Your task to perform on an android device: Clear all items from cart on walmart. Add logitech g933 to the cart on walmart Image 0: 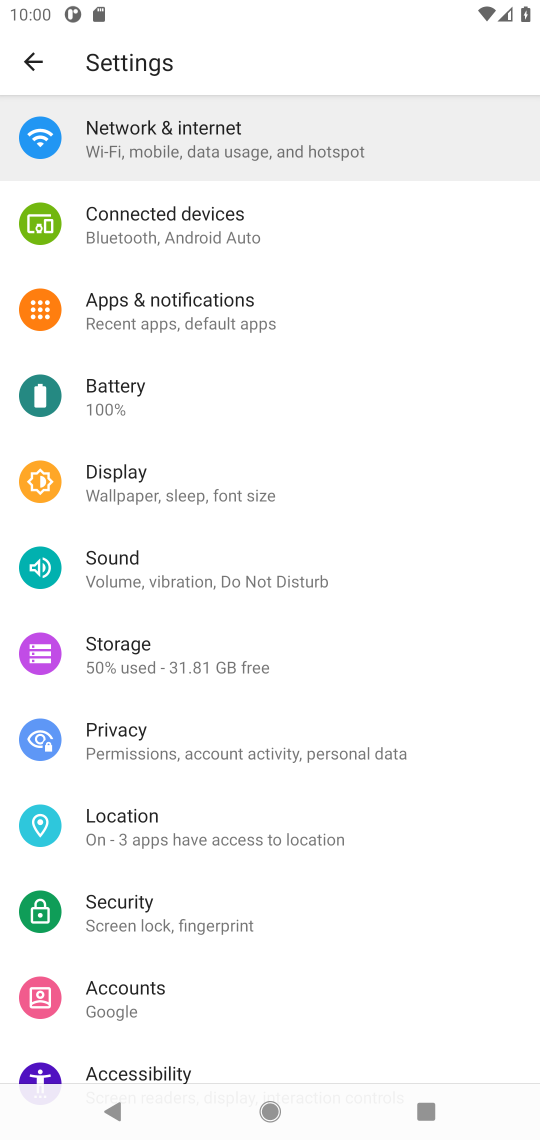
Step 0: press home button
Your task to perform on an android device: Clear all items from cart on walmart. Add logitech g933 to the cart on walmart Image 1: 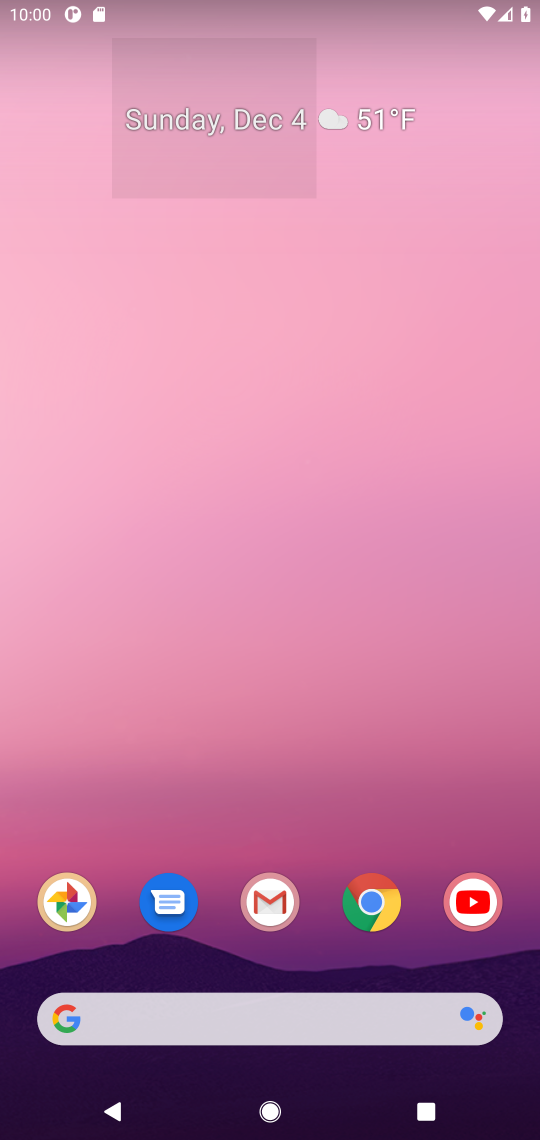
Step 1: click (365, 925)
Your task to perform on an android device: Clear all items from cart on walmart. Add logitech g933 to the cart on walmart Image 2: 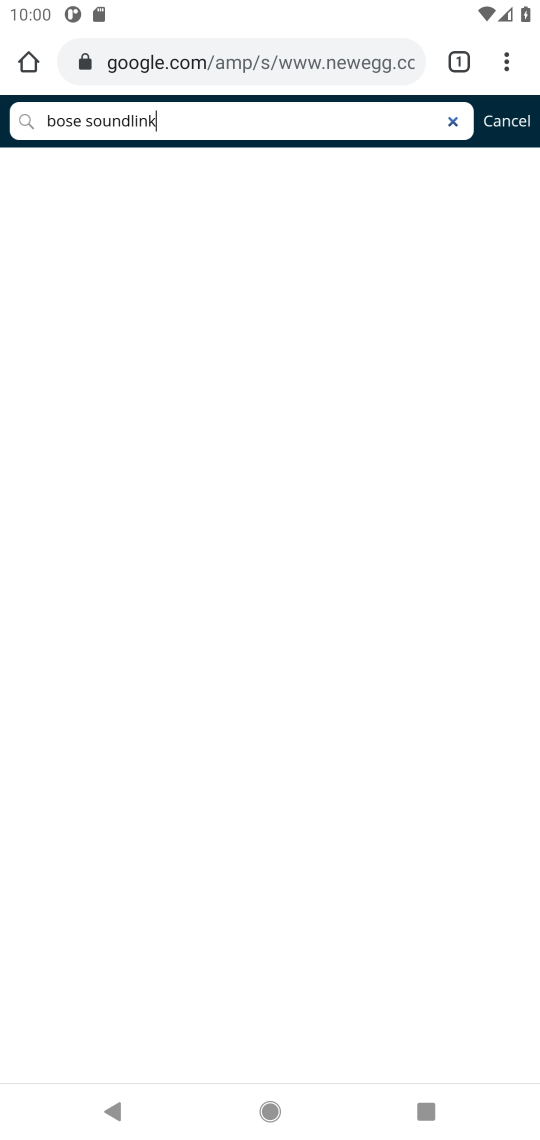
Step 2: click (283, 68)
Your task to perform on an android device: Clear all items from cart on walmart. Add logitech g933 to the cart on walmart Image 3: 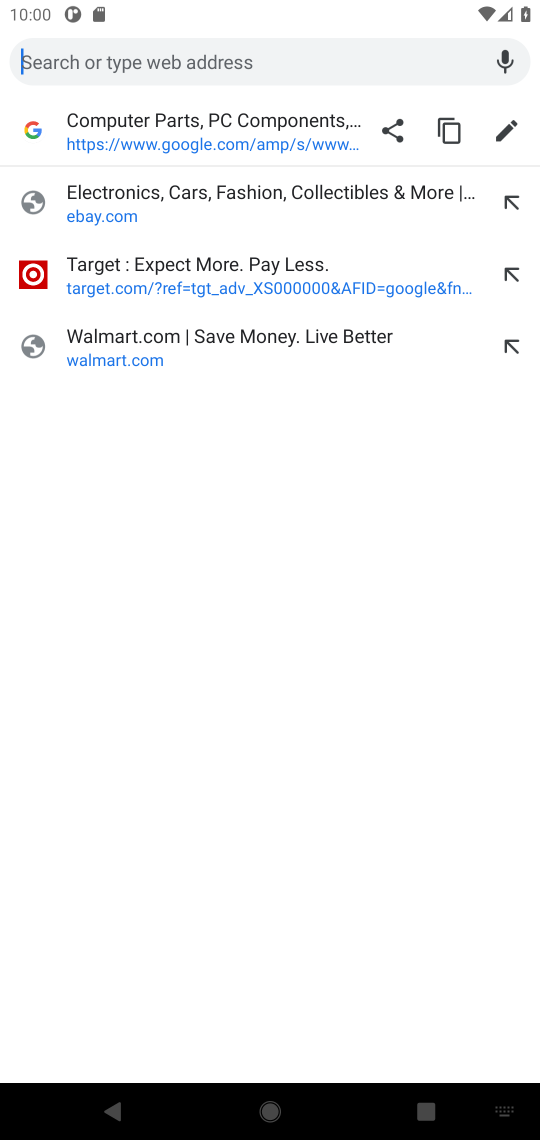
Step 3: click (151, 360)
Your task to perform on an android device: Clear all items from cart on walmart. Add logitech g933 to the cart on walmart Image 4: 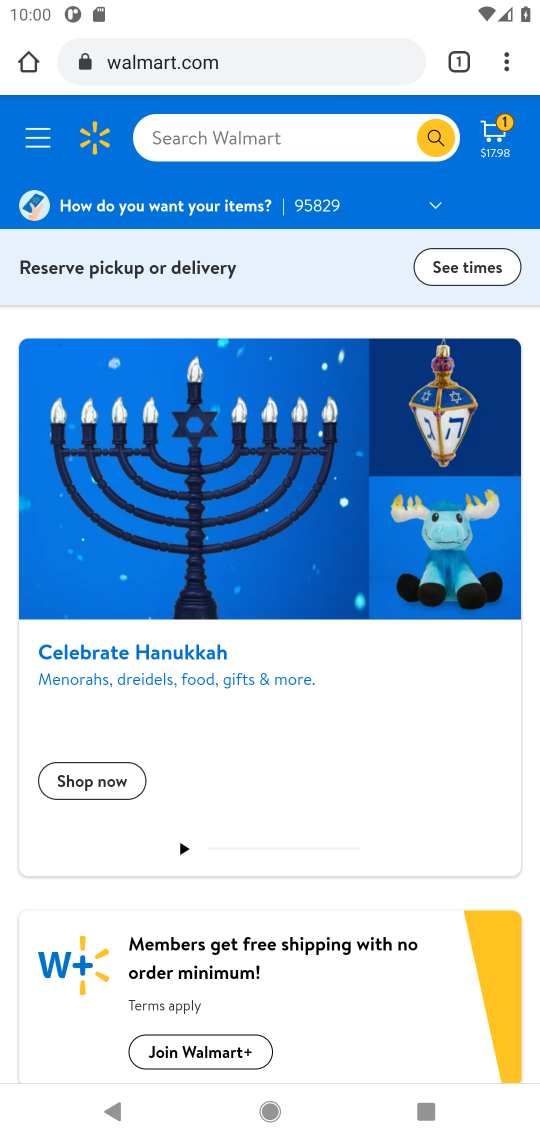
Step 4: click (506, 144)
Your task to perform on an android device: Clear all items from cart on walmart. Add logitech g933 to the cart on walmart Image 5: 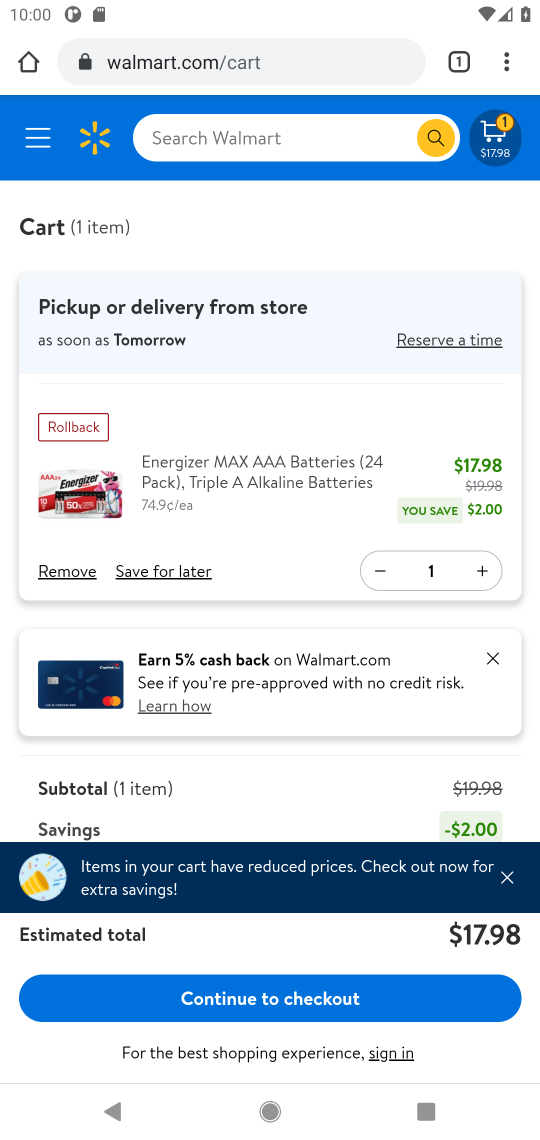
Step 5: click (67, 570)
Your task to perform on an android device: Clear all items from cart on walmart. Add logitech g933 to the cart on walmart Image 6: 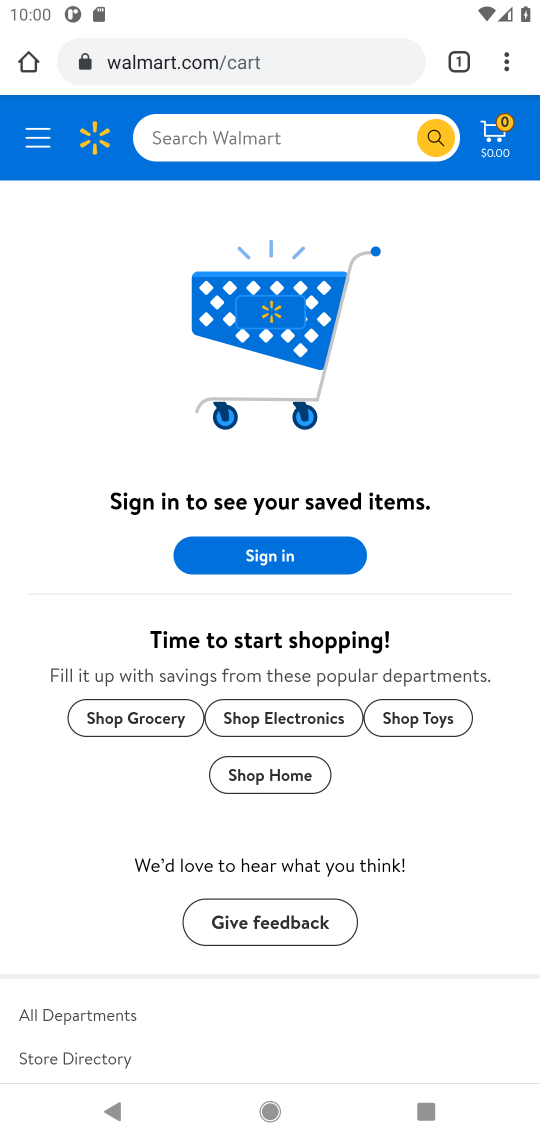
Step 6: click (316, 133)
Your task to perform on an android device: Clear all items from cart on walmart. Add logitech g933 to the cart on walmart Image 7: 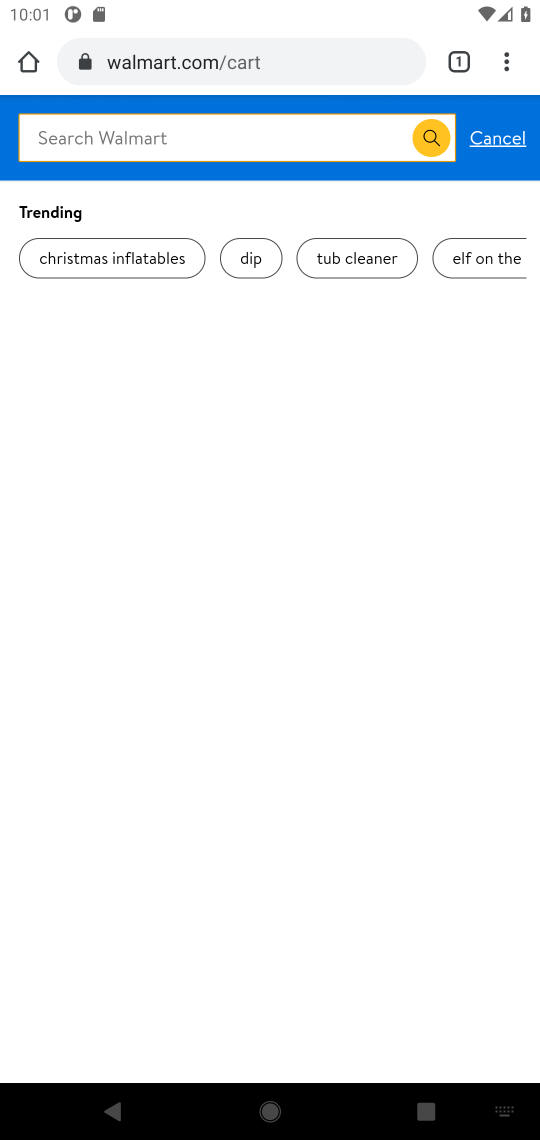
Step 7: type "logitech g933"
Your task to perform on an android device: Clear all items from cart on walmart. Add logitech g933 to the cart on walmart Image 8: 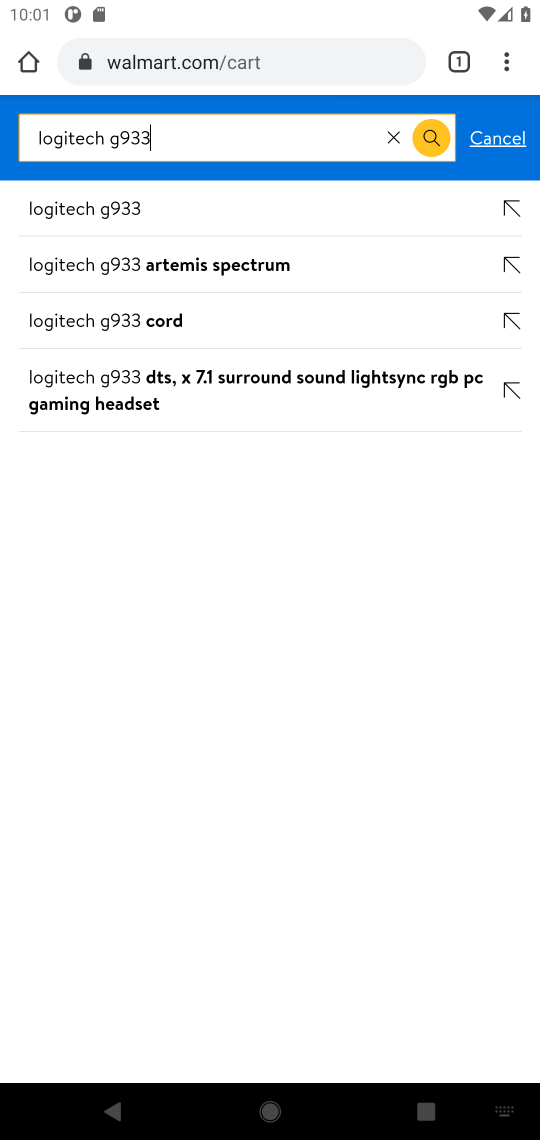
Step 8: click (424, 143)
Your task to perform on an android device: Clear all items from cart on walmart. Add logitech g933 to the cart on walmart Image 9: 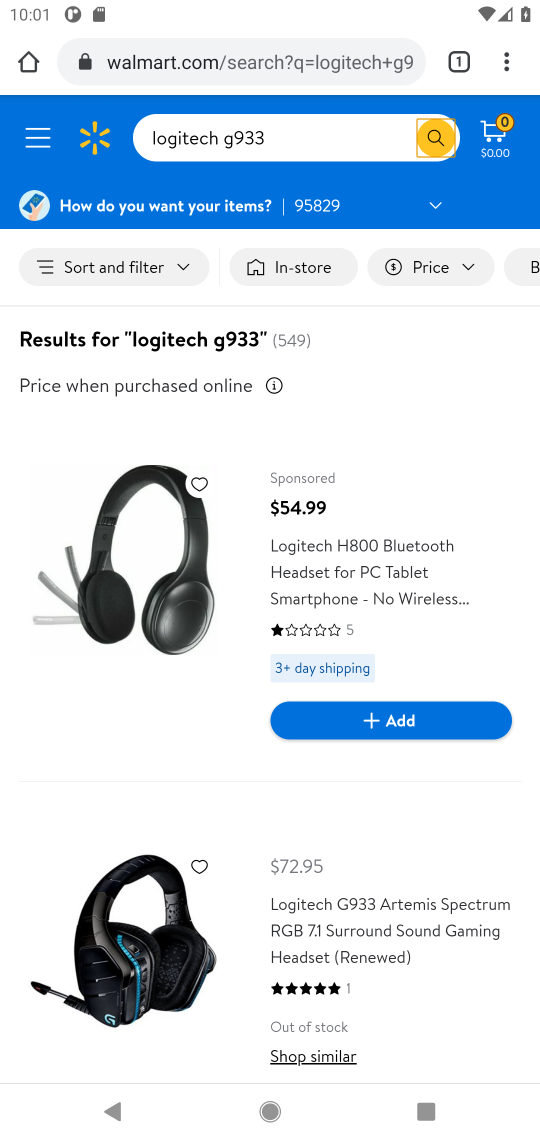
Step 9: drag from (352, 1010) to (398, 432)
Your task to perform on an android device: Clear all items from cart on walmart. Add logitech g933 to the cart on walmart Image 10: 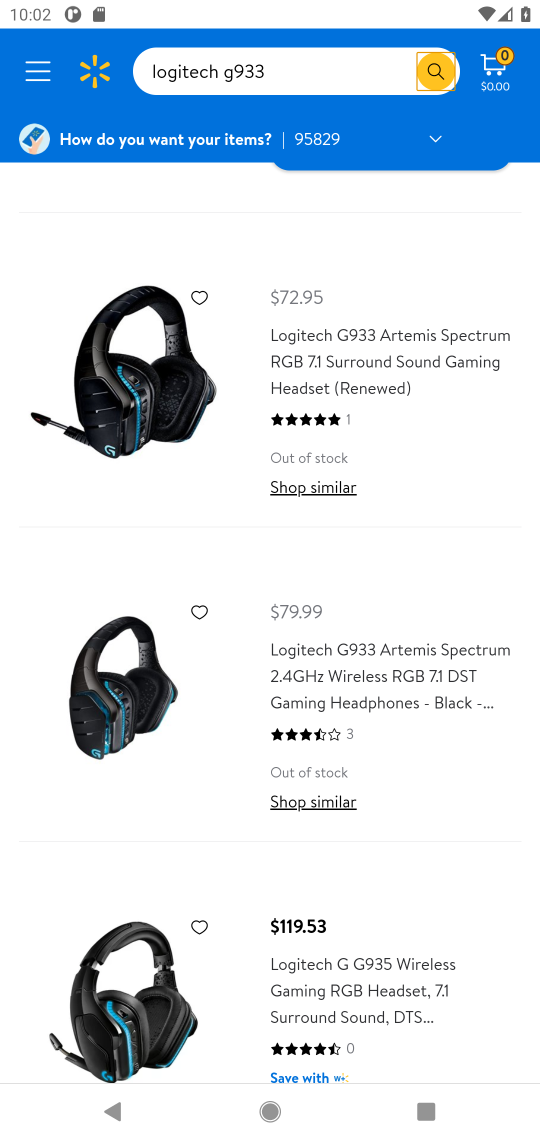
Step 10: click (360, 705)
Your task to perform on an android device: Clear all items from cart on walmart. Add logitech g933 to the cart on walmart Image 11: 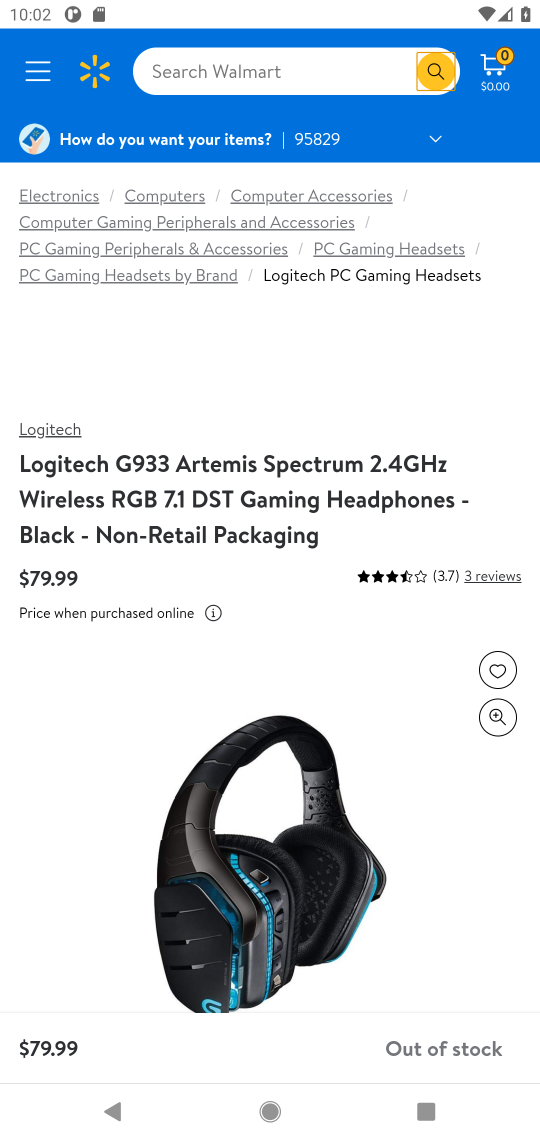
Step 11: task complete